Your task to perform on an android device: install app "YouTube Kids" Image 0: 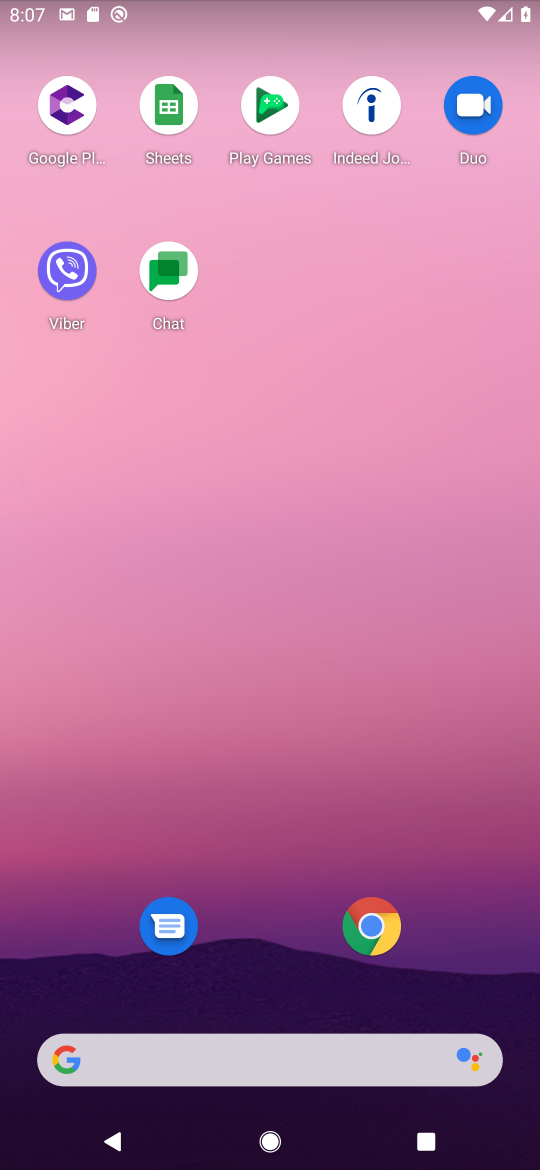
Step 0: drag from (250, 915) to (423, 95)
Your task to perform on an android device: install app "YouTube Kids" Image 1: 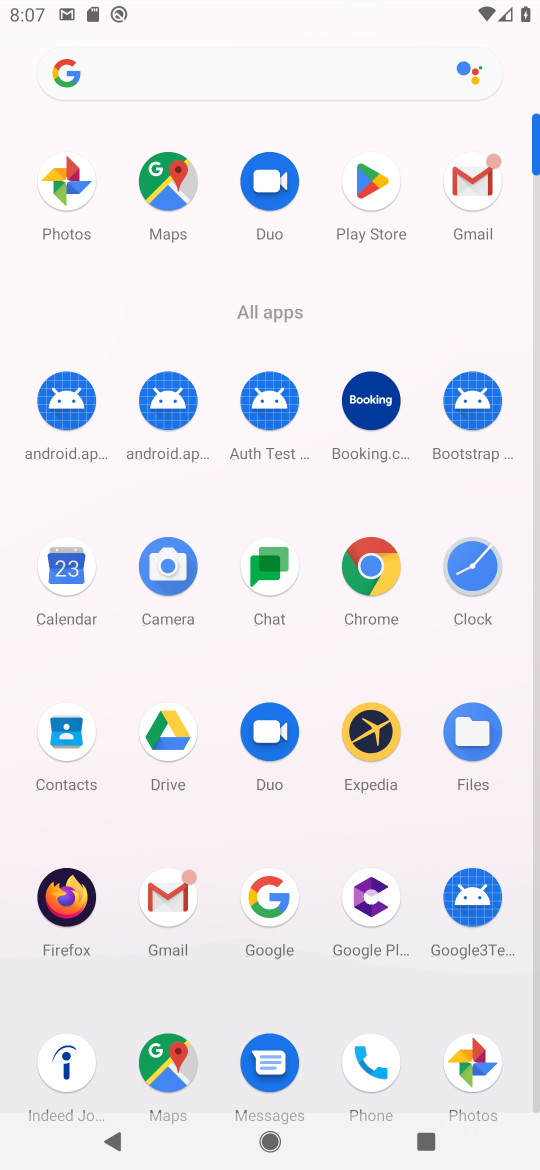
Step 1: click (375, 194)
Your task to perform on an android device: install app "YouTube Kids" Image 2: 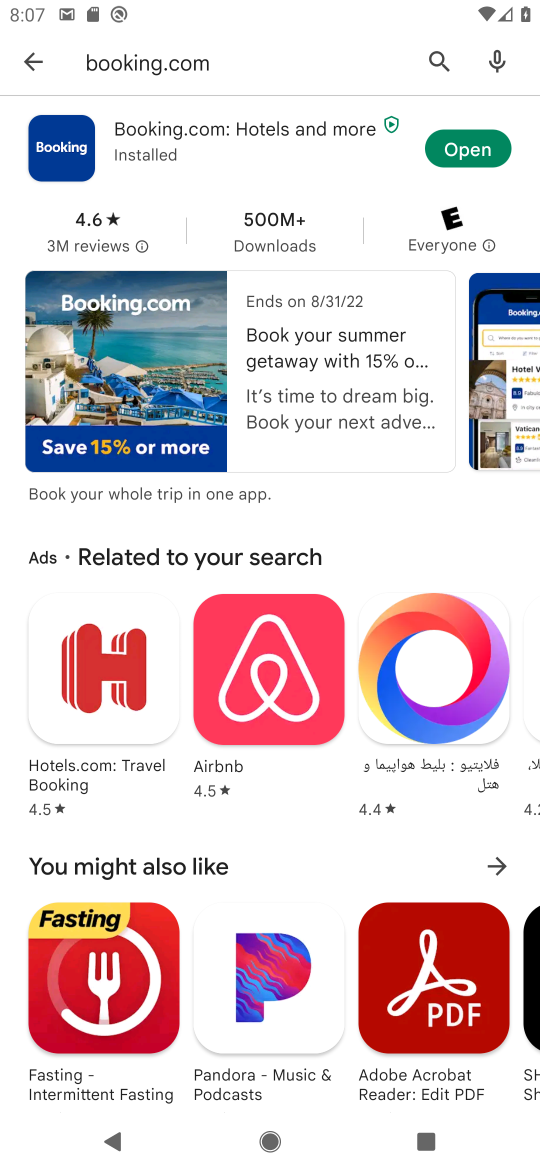
Step 2: click (208, 82)
Your task to perform on an android device: install app "YouTube Kids" Image 3: 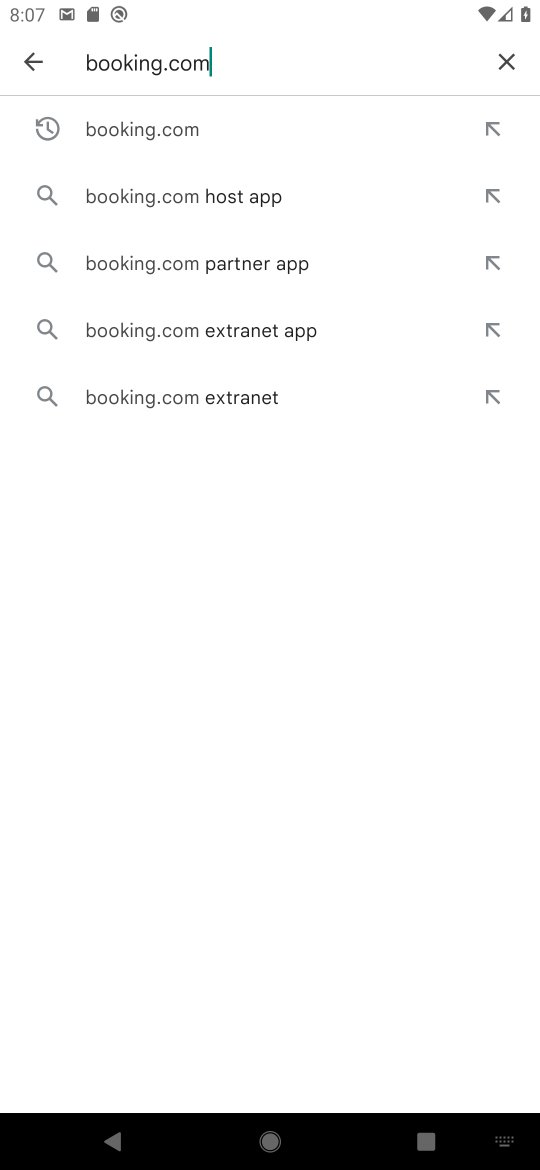
Step 3: click (505, 56)
Your task to perform on an android device: install app "YouTube Kids" Image 4: 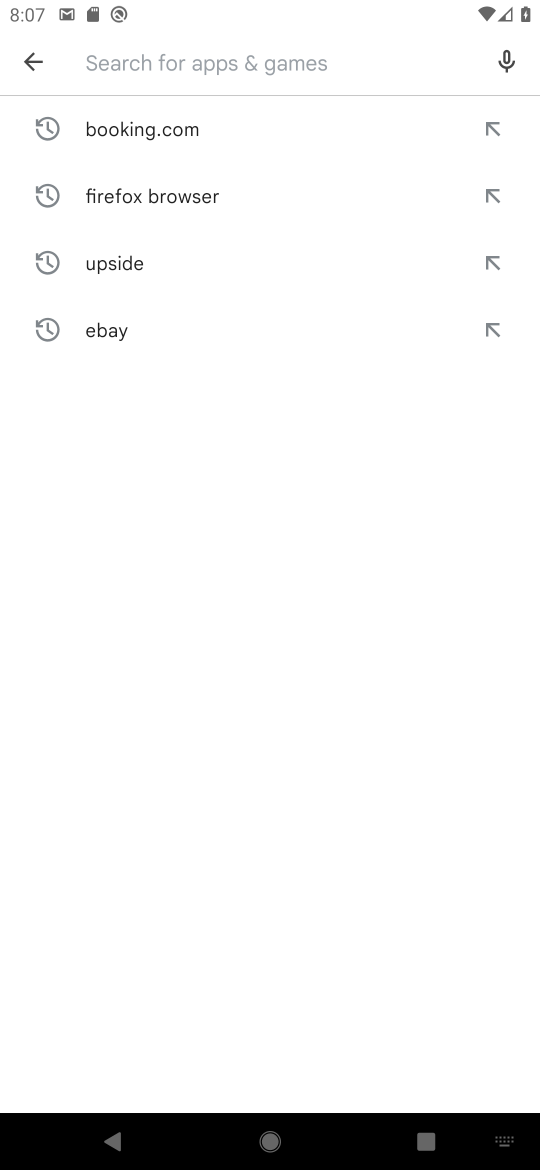
Step 4: type "youtube kids"
Your task to perform on an android device: install app "YouTube Kids" Image 5: 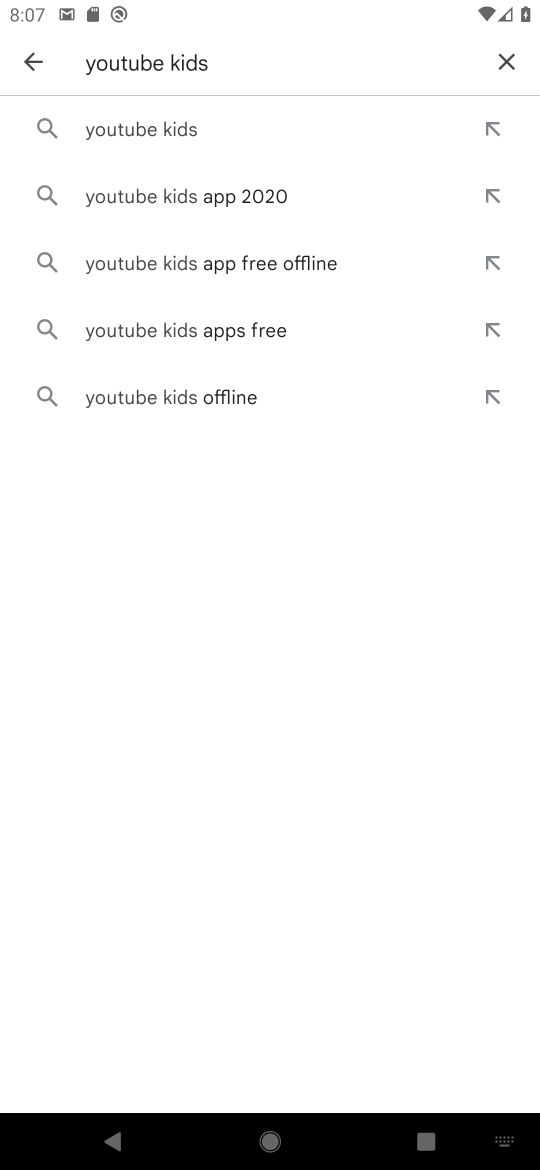
Step 5: click (148, 121)
Your task to perform on an android device: install app "YouTube Kids" Image 6: 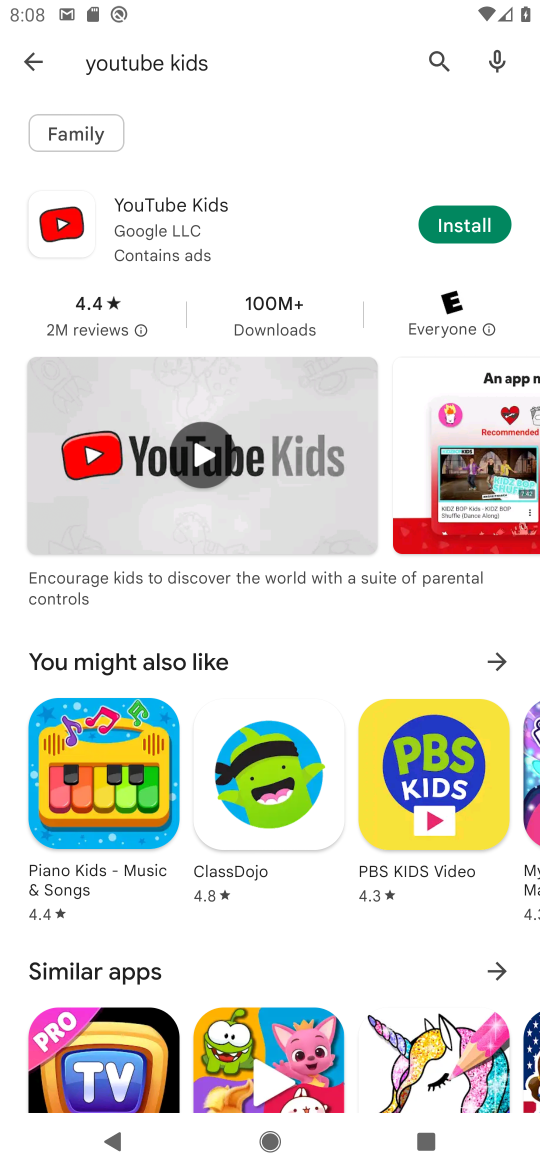
Step 6: click (479, 221)
Your task to perform on an android device: install app "YouTube Kids" Image 7: 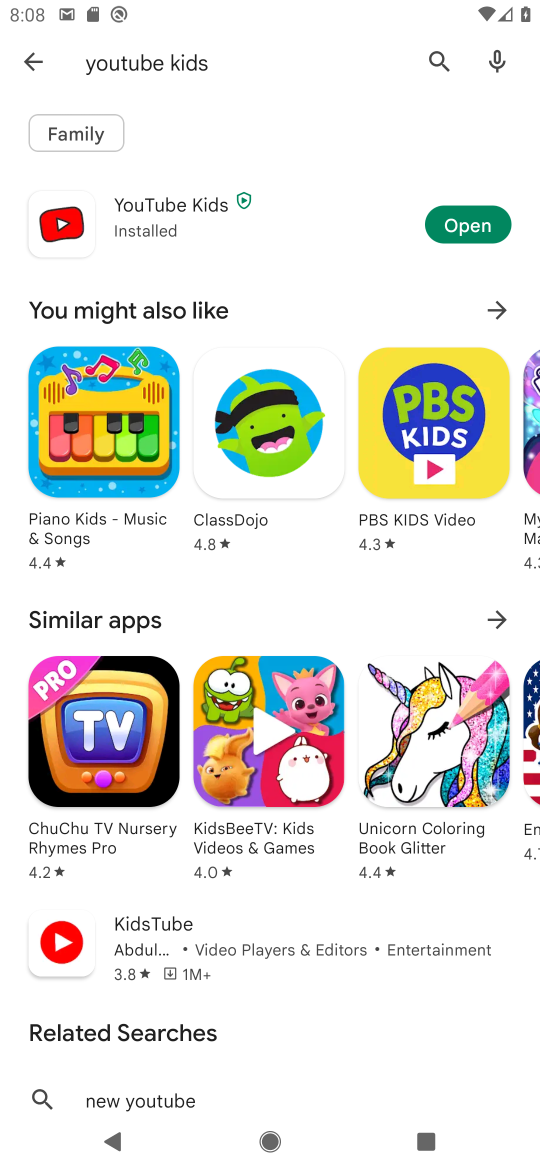
Step 7: task complete